Your task to perform on an android device: Go to battery settings Image 0: 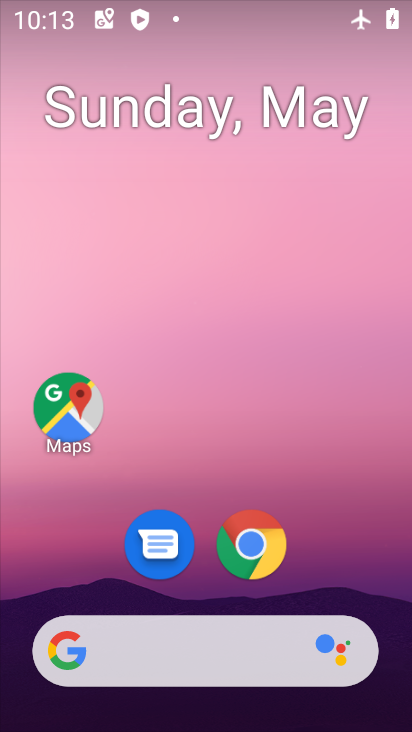
Step 0: drag from (299, 581) to (280, 314)
Your task to perform on an android device: Go to battery settings Image 1: 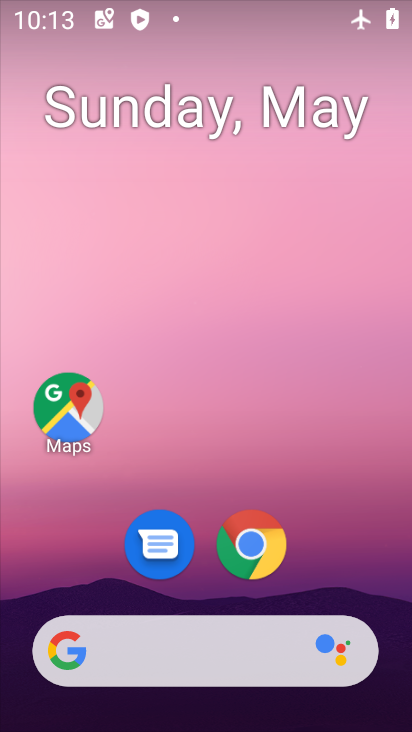
Step 1: drag from (312, 587) to (241, 189)
Your task to perform on an android device: Go to battery settings Image 2: 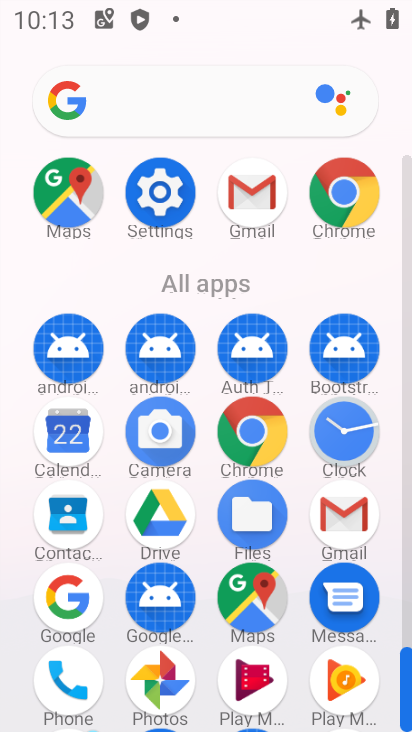
Step 2: click (142, 176)
Your task to perform on an android device: Go to battery settings Image 3: 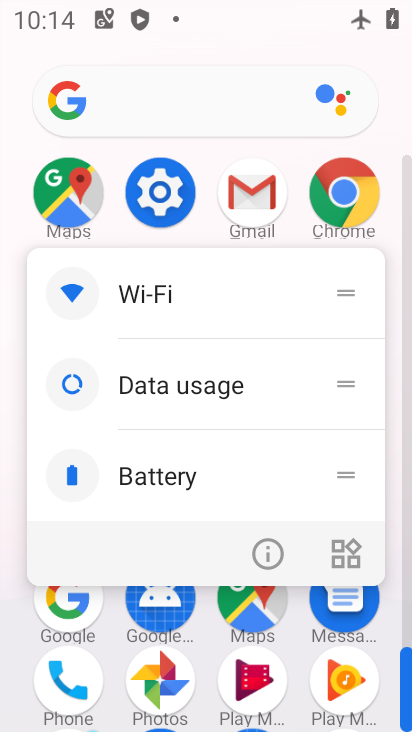
Step 3: click (142, 180)
Your task to perform on an android device: Go to battery settings Image 4: 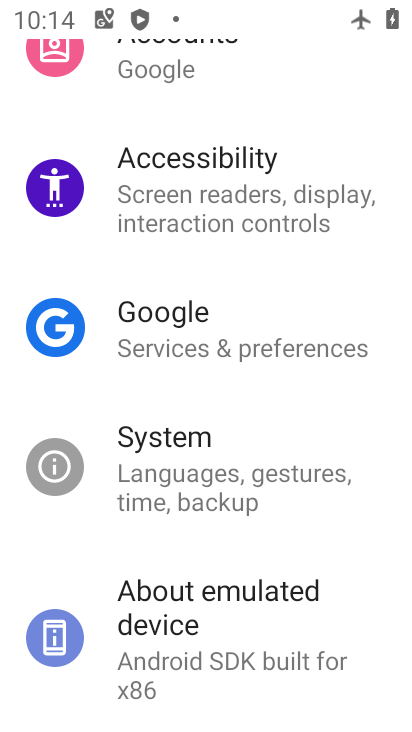
Step 4: drag from (234, 354) to (226, 649)
Your task to perform on an android device: Go to battery settings Image 5: 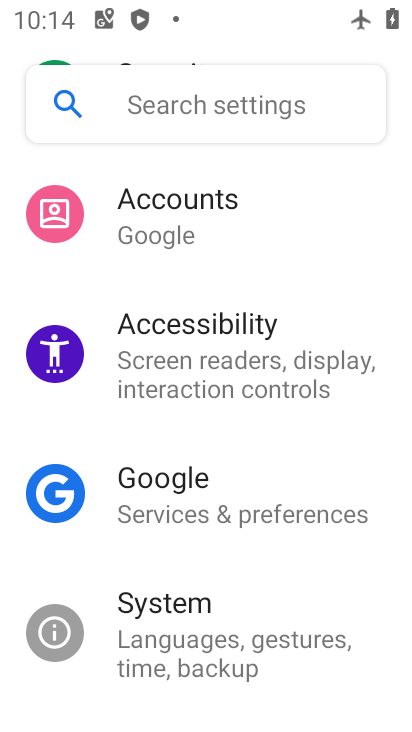
Step 5: drag from (236, 229) to (188, 642)
Your task to perform on an android device: Go to battery settings Image 6: 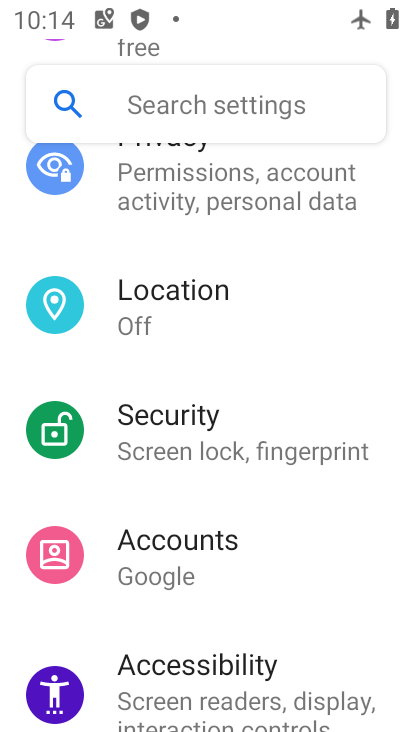
Step 6: drag from (190, 302) to (180, 648)
Your task to perform on an android device: Go to battery settings Image 7: 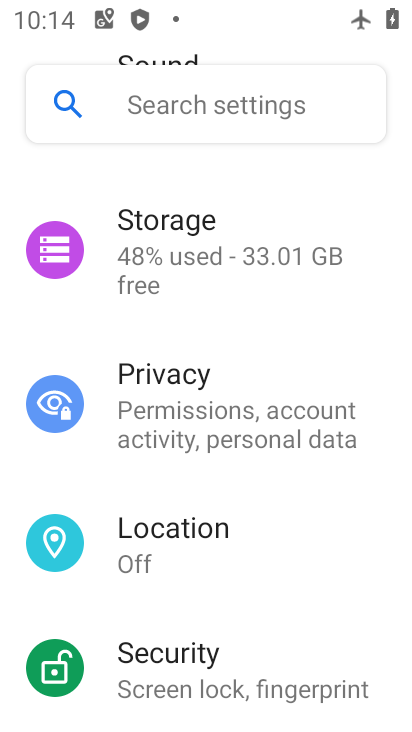
Step 7: drag from (200, 303) to (207, 685)
Your task to perform on an android device: Go to battery settings Image 8: 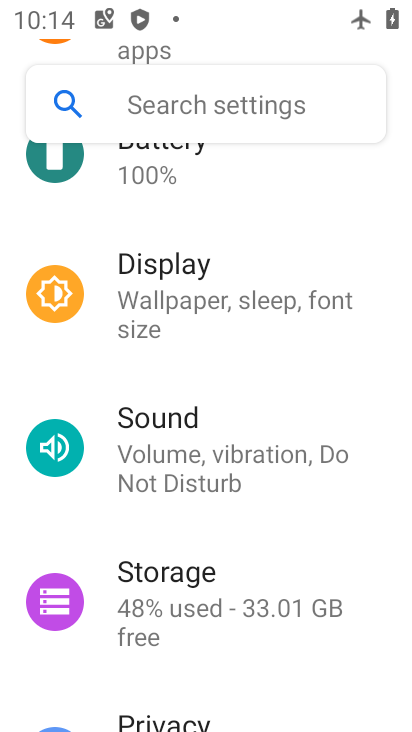
Step 8: drag from (198, 288) to (128, 625)
Your task to perform on an android device: Go to battery settings Image 9: 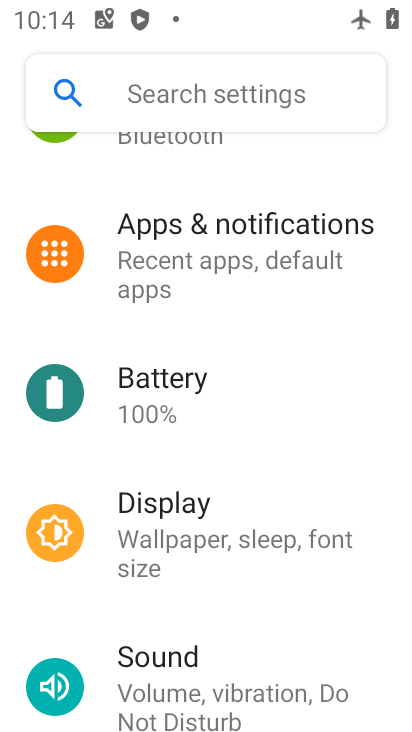
Step 9: click (182, 383)
Your task to perform on an android device: Go to battery settings Image 10: 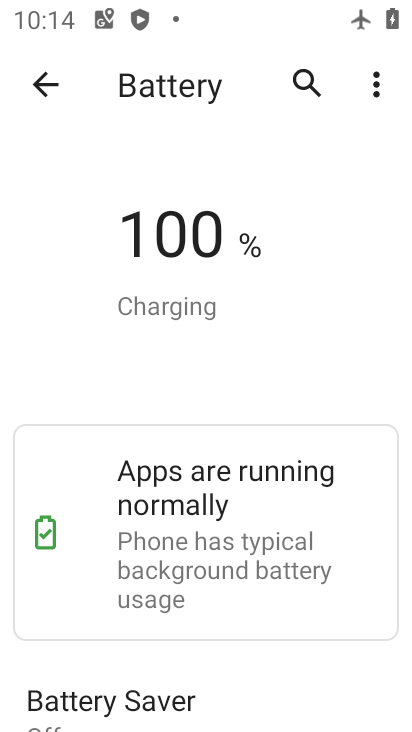
Step 10: task complete